Your task to perform on an android device: turn pop-ups on in chrome Image 0: 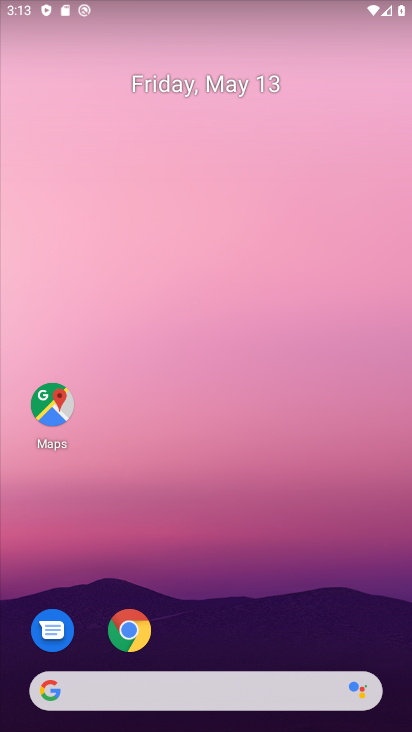
Step 0: click (133, 636)
Your task to perform on an android device: turn pop-ups on in chrome Image 1: 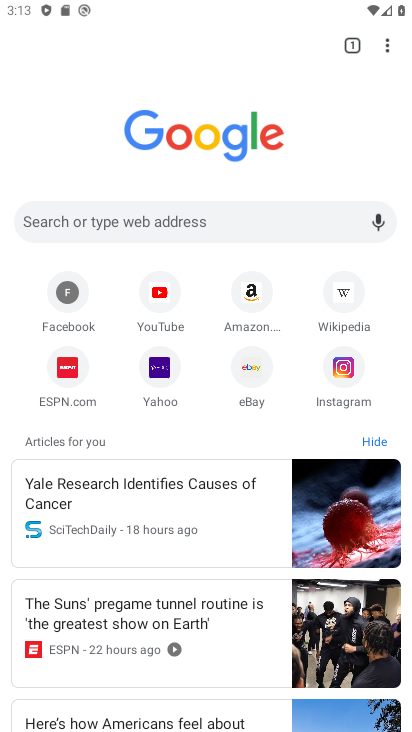
Step 1: drag from (387, 48) to (229, 385)
Your task to perform on an android device: turn pop-ups on in chrome Image 2: 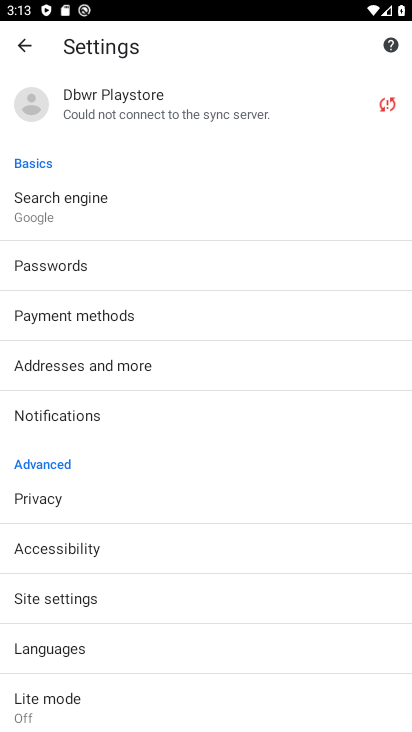
Step 2: drag from (195, 558) to (185, 264)
Your task to perform on an android device: turn pop-ups on in chrome Image 3: 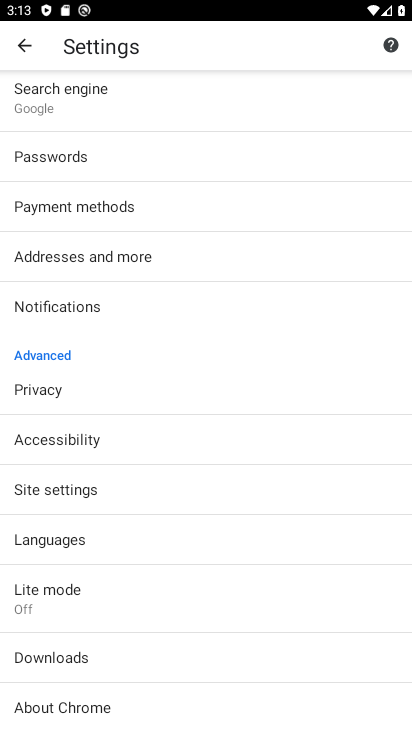
Step 3: click (104, 490)
Your task to perform on an android device: turn pop-ups on in chrome Image 4: 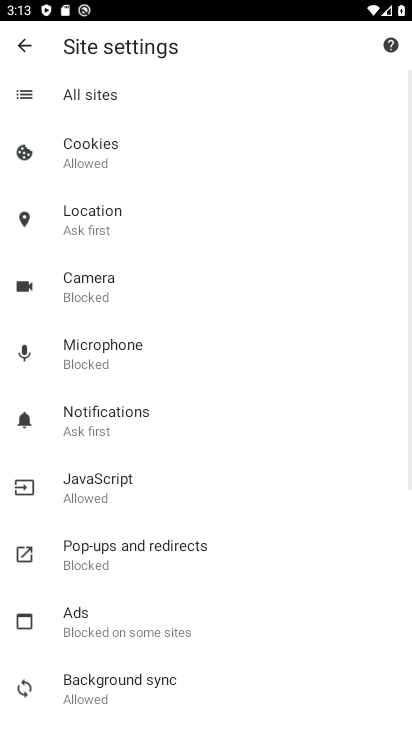
Step 4: click (148, 562)
Your task to perform on an android device: turn pop-ups on in chrome Image 5: 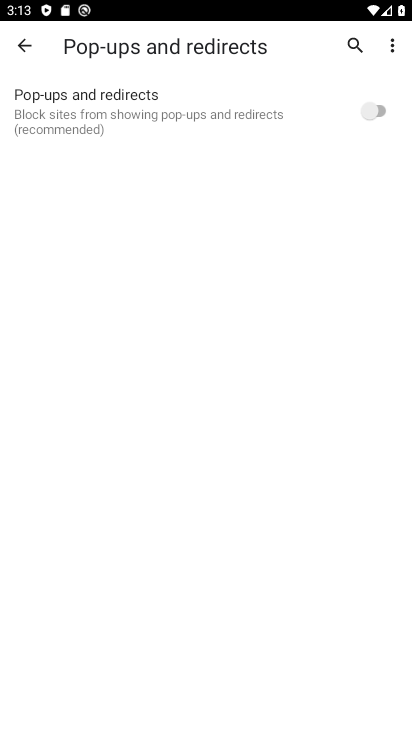
Step 5: click (376, 118)
Your task to perform on an android device: turn pop-ups on in chrome Image 6: 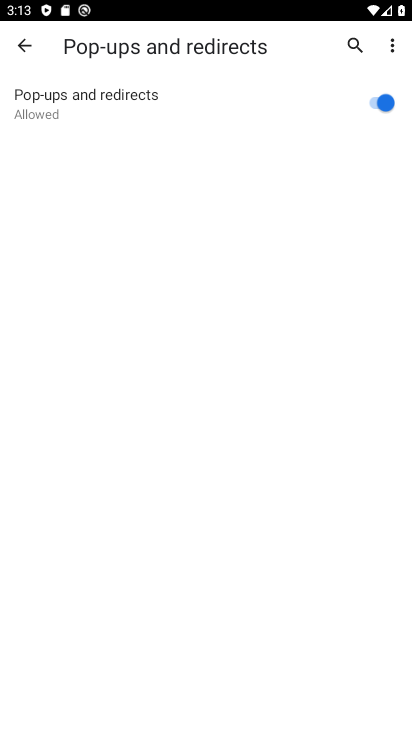
Step 6: task complete